Your task to perform on an android device: Go to eBay Image 0: 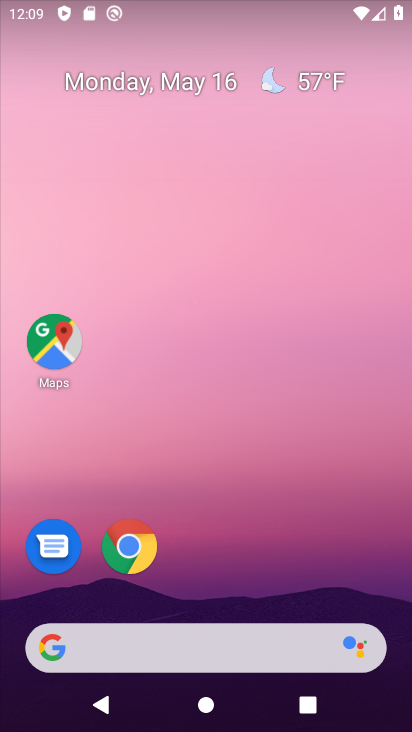
Step 0: click (136, 564)
Your task to perform on an android device: Go to eBay Image 1: 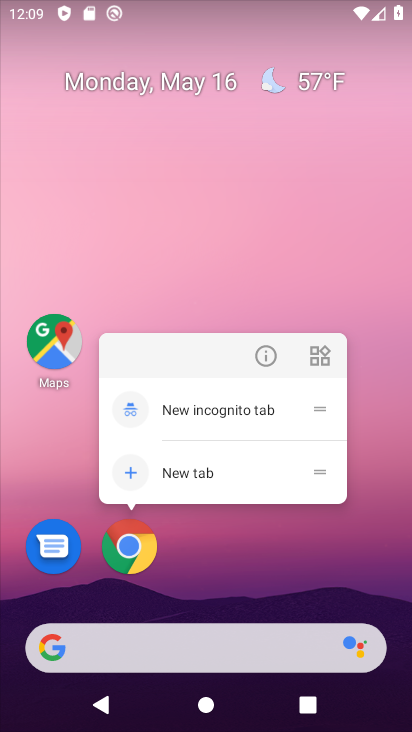
Step 1: click (128, 553)
Your task to perform on an android device: Go to eBay Image 2: 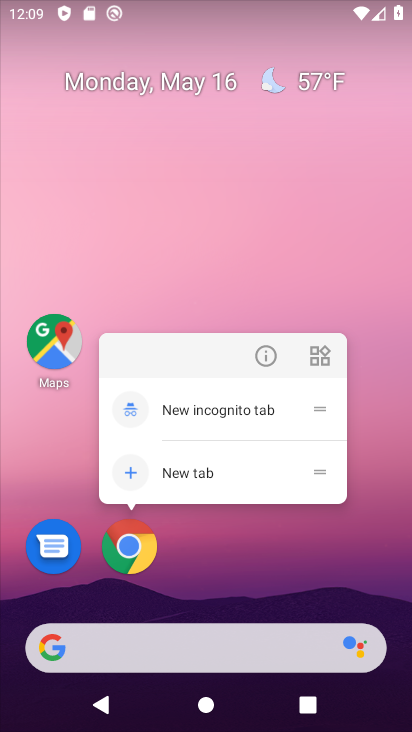
Step 2: click (132, 552)
Your task to perform on an android device: Go to eBay Image 3: 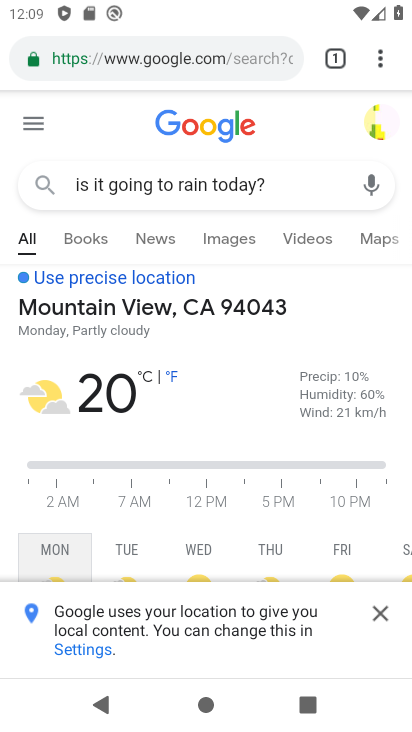
Step 3: click (151, 52)
Your task to perform on an android device: Go to eBay Image 4: 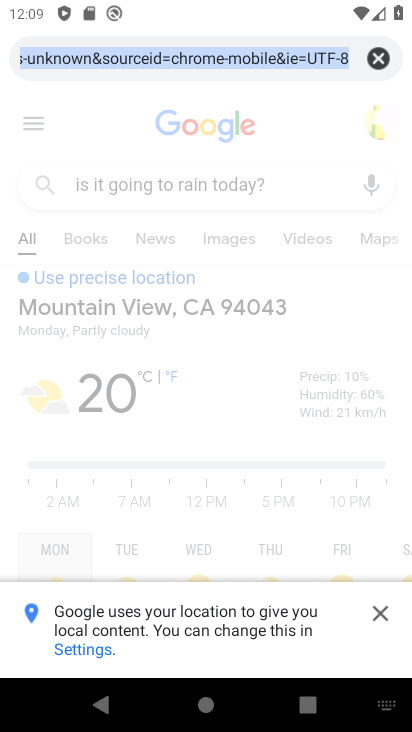
Step 4: type "ebay"
Your task to perform on an android device: Go to eBay Image 5: 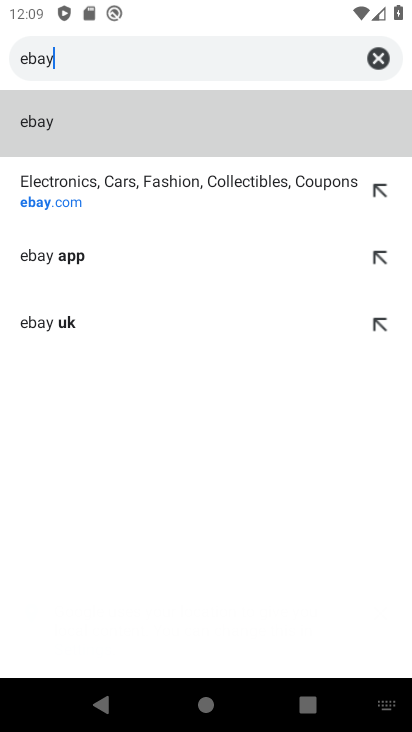
Step 5: click (98, 203)
Your task to perform on an android device: Go to eBay Image 6: 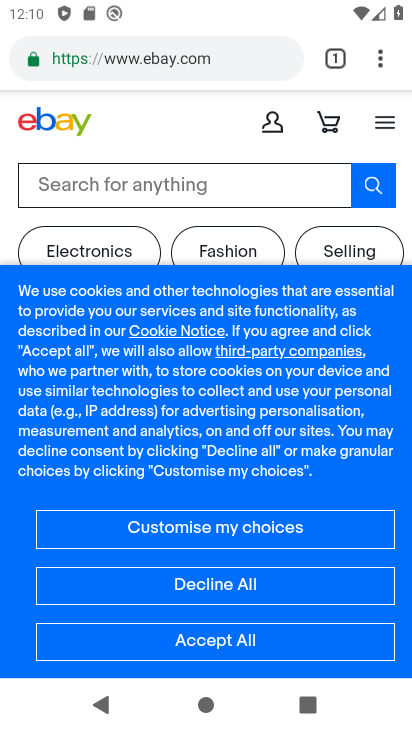
Step 6: task complete